Your task to perform on an android device: move an email to a new category in the gmail app Image 0: 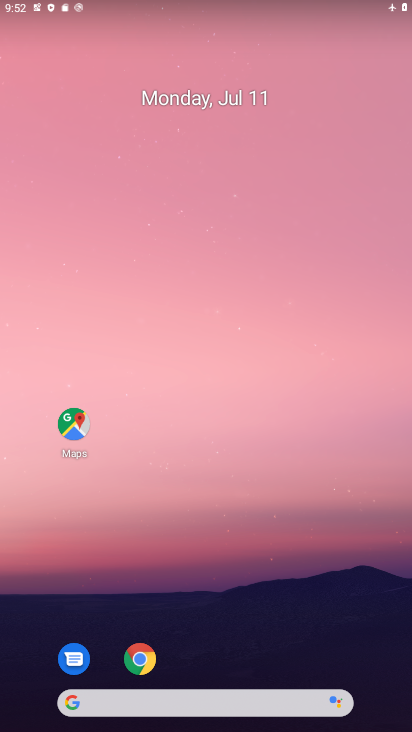
Step 0: drag from (228, 721) to (224, 118)
Your task to perform on an android device: move an email to a new category in the gmail app Image 1: 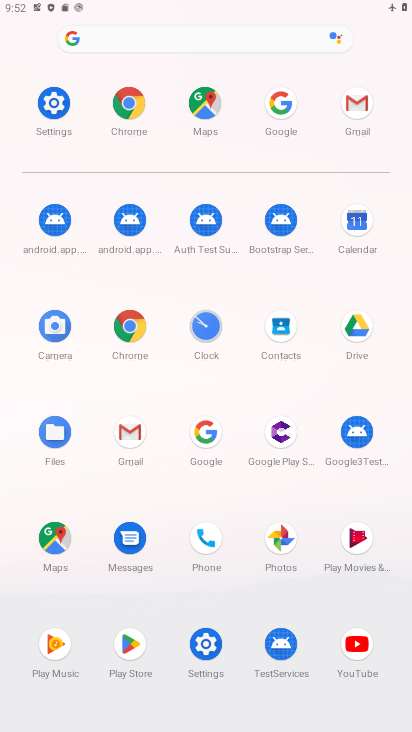
Step 1: click (132, 432)
Your task to perform on an android device: move an email to a new category in the gmail app Image 2: 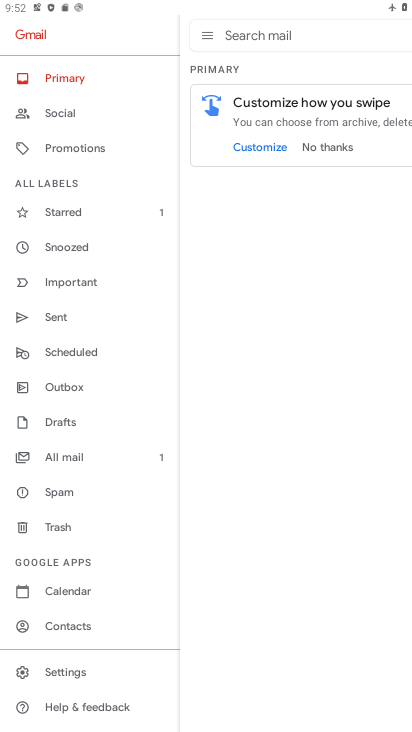
Step 2: task complete